Your task to perform on an android device: Open the map Image 0: 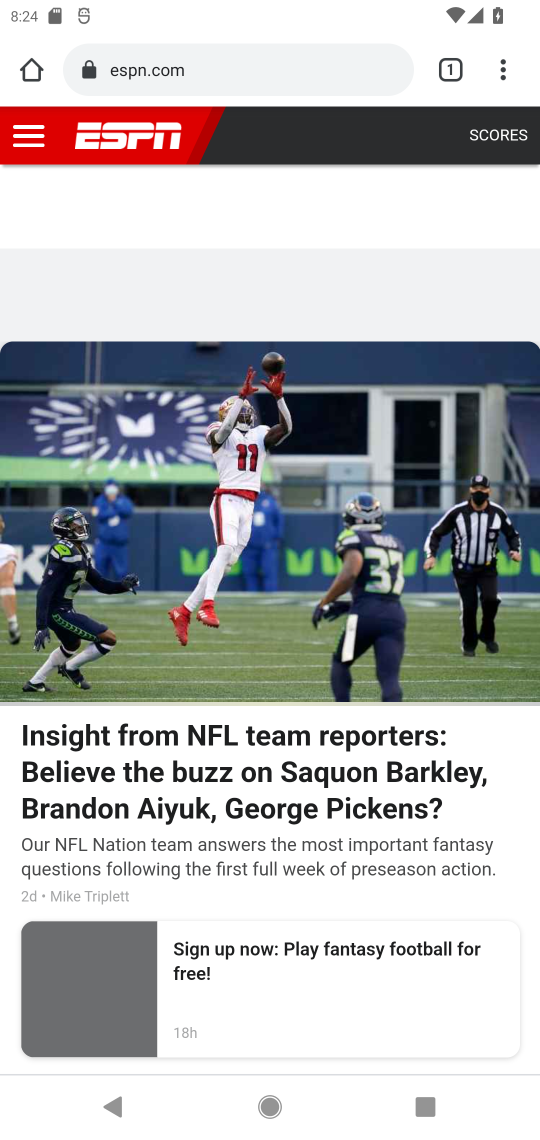
Step 0: press home button
Your task to perform on an android device: Open the map Image 1: 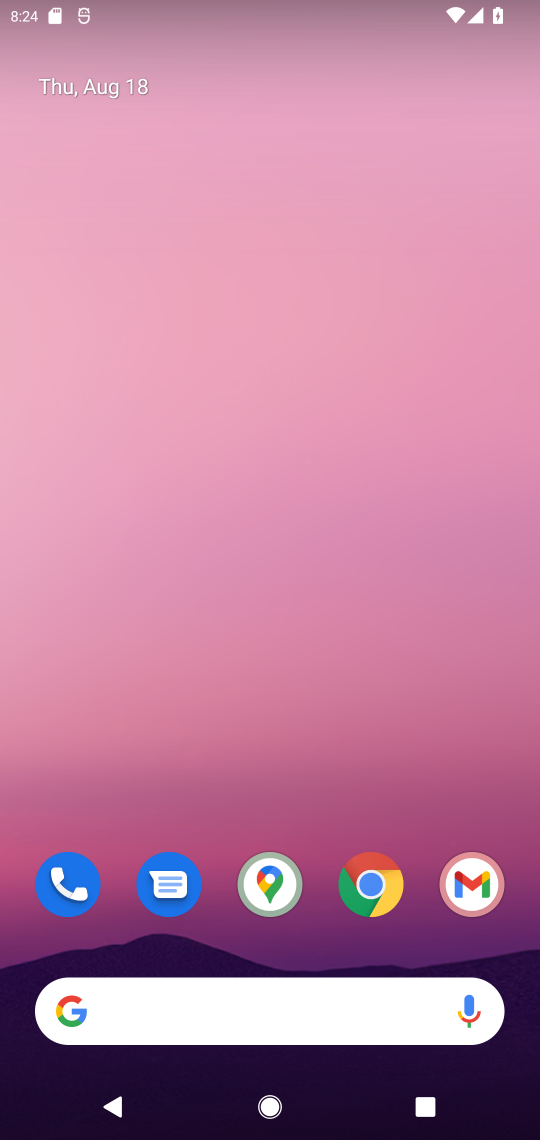
Step 1: click (255, 881)
Your task to perform on an android device: Open the map Image 2: 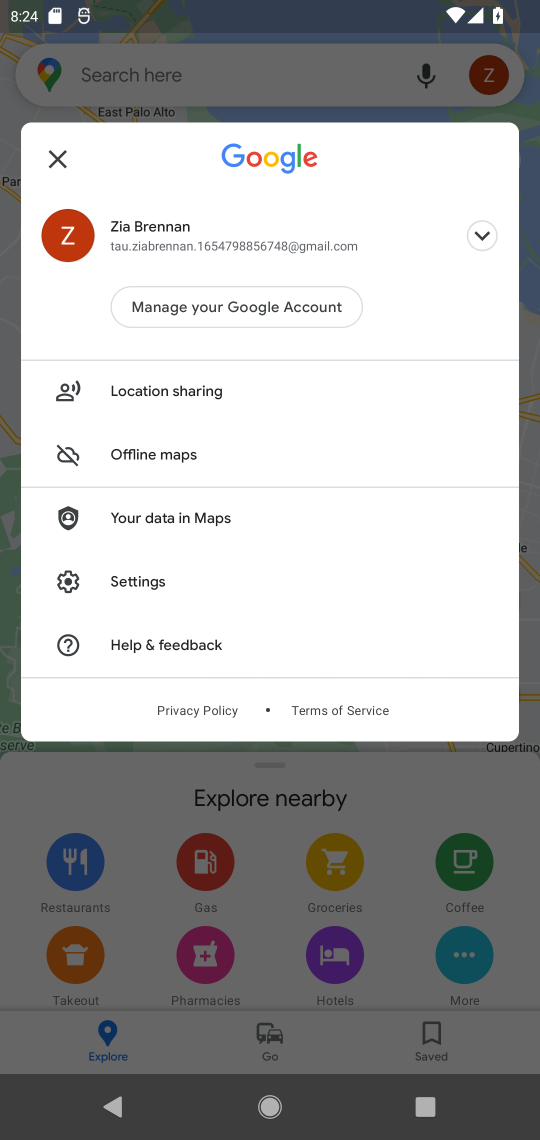
Step 2: click (67, 151)
Your task to perform on an android device: Open the map Image 3: 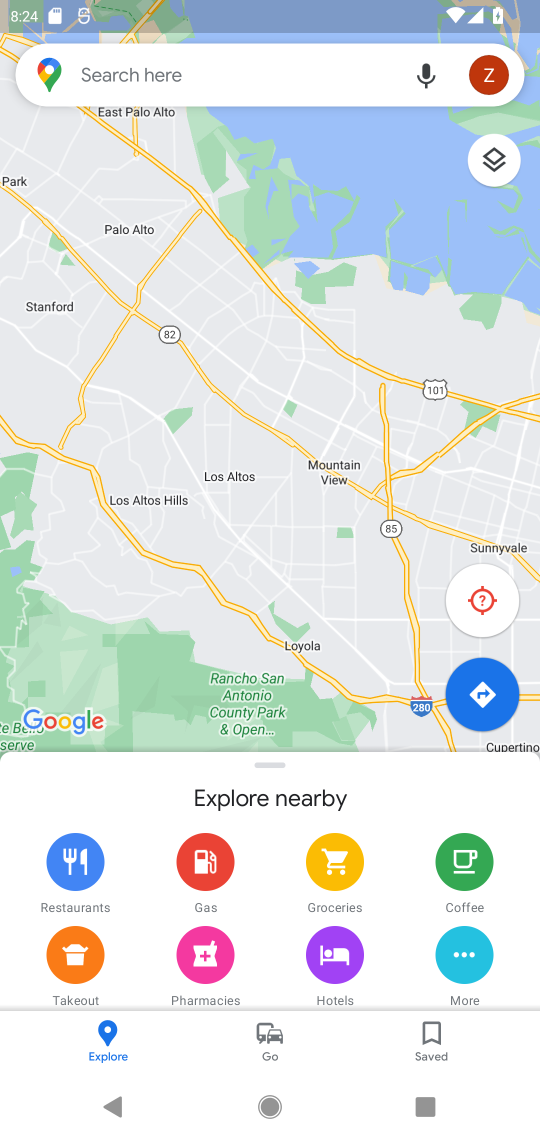
Step 3: task complete